Your task to perform on an android device: Do I have any events this weekend? Image 0: 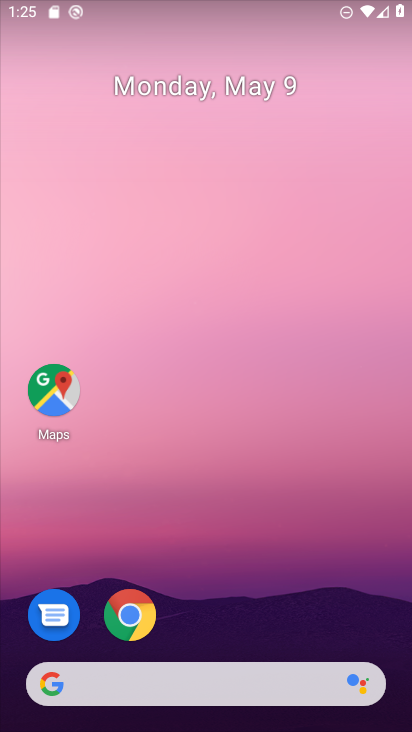
Step 0: drag from (228, 627) to (237, 69)
Your task to perform on an android device: Do I have any events this weekend? Image 1: 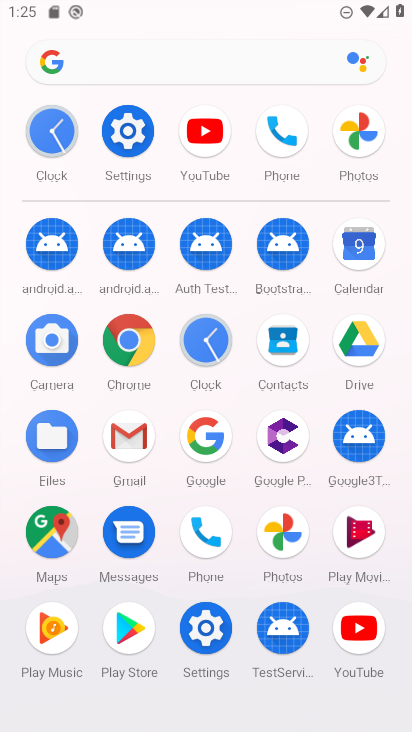
Step 1: click (360, 246)
Your task to perform on an android device: Do I have any events this weekend? Image 2: 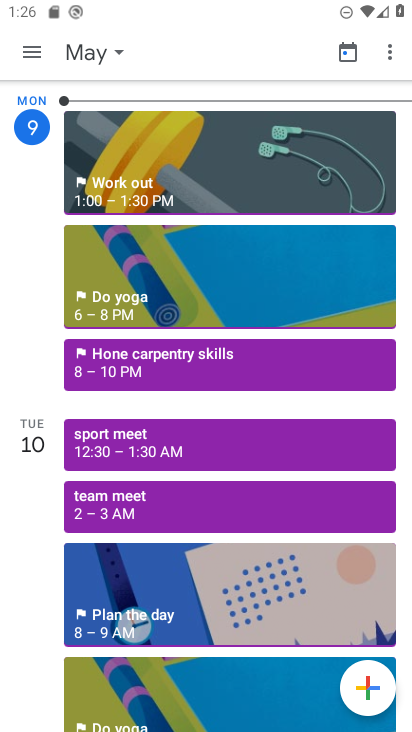
Step 2: click (118, 53)
Your task to perform on an android device: Do I have any events this weekend? Image 3: 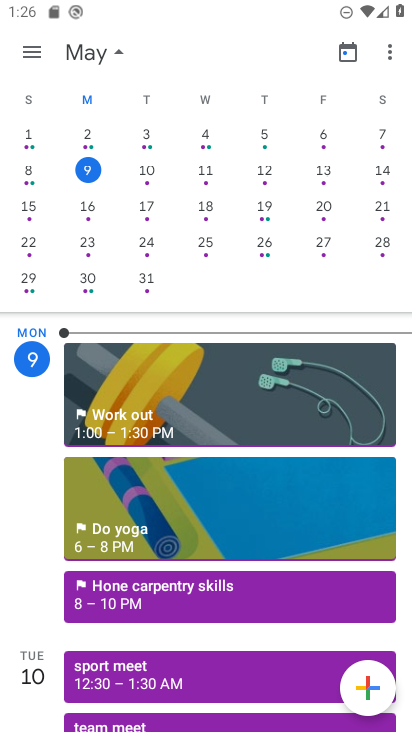
Step 3: click (381, 205)
Your task to perform on an android device: Do I have any events this weekend? Image 4: 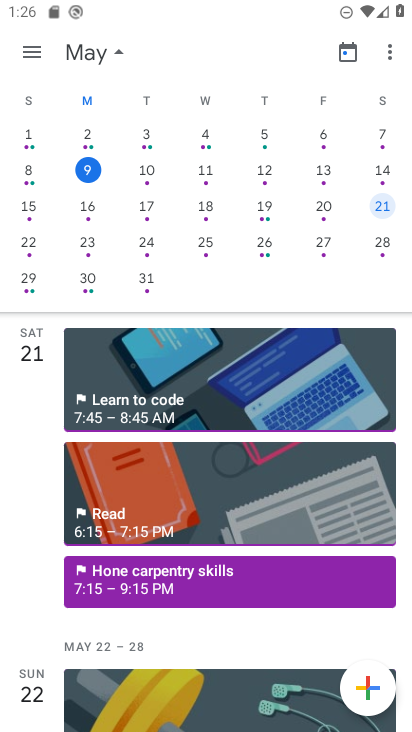
Step 4: click (184, 592)
Your task to perform on an android device: Do I have any events this weekend? Image 5: 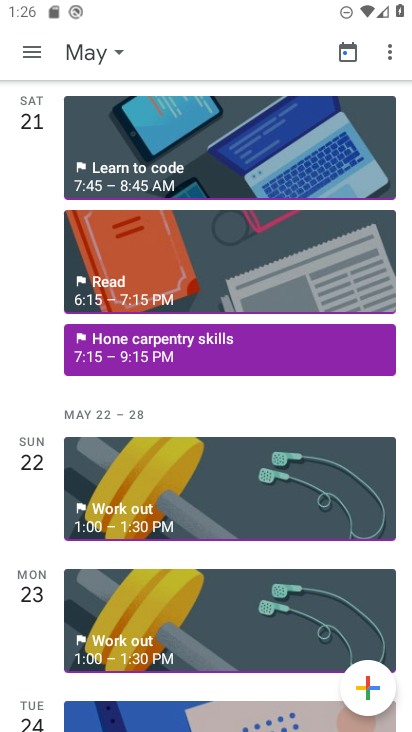
Step 5: click (251, 351)
Your task to perform on an android device: Do I have any events this weekend? Image 6: 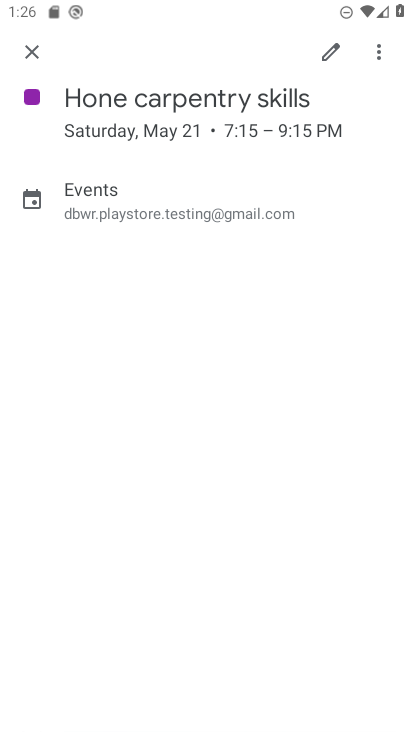
Step 6: task complete